Your task to perform on an android device: Open the Play Movies app and select the watchlist tab. Image 0: 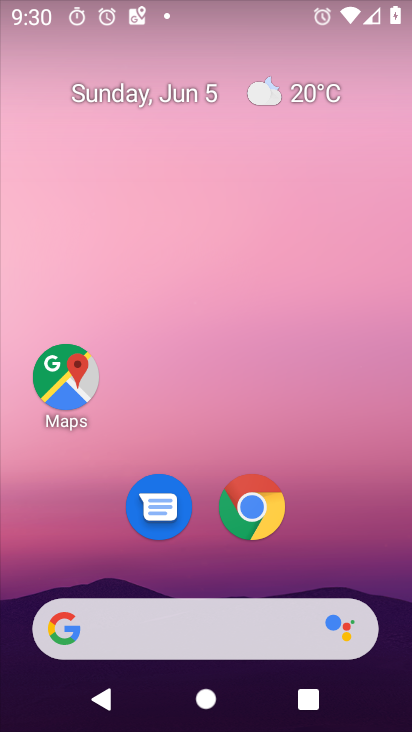
Step 0: drag from (329, 475) to (231, 1)
Your task to perform on an android device: Open the Play Movies app and select the watchlist tab. Image 1: 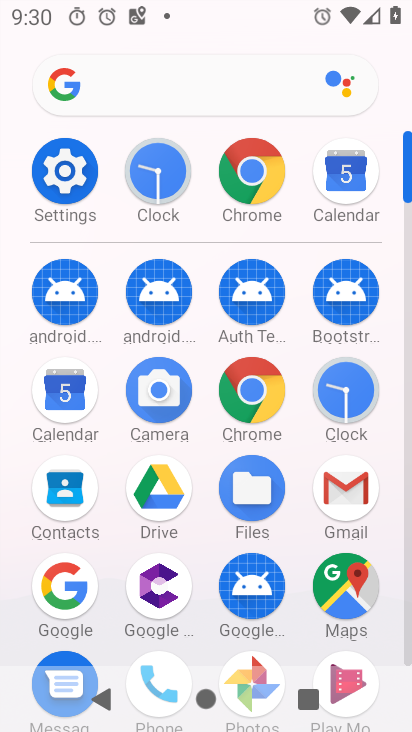
Step 1: drag from (1, 642) to (1, 246)
Your task to perform on an android device: Open the Play Movies app and select the watchlist tab. Image 2: 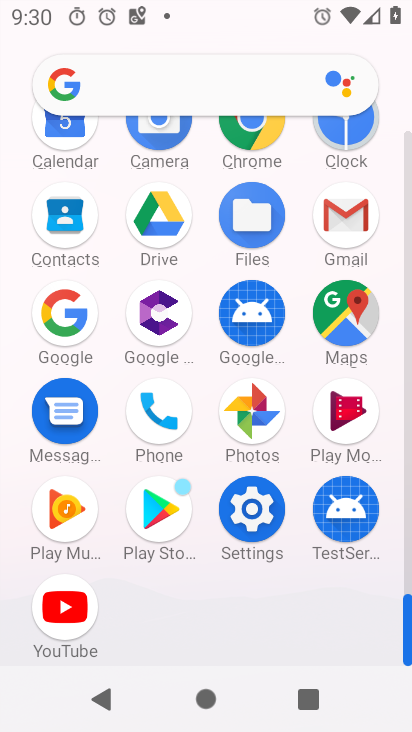
Step 2: click (342, 416)
Your task to perform on an android device: Open the Play Movies app and select the watchlist tab. Image 3: 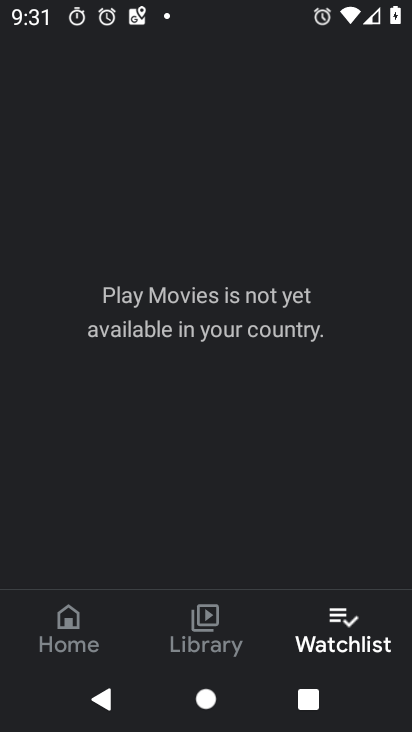
Step 3: task complete